Your task to perform on an android device: open app "Lyft - Rideshare, Bikes, Scooters & Transit" (install if not already installed) and enter user name: "deliberating@gmail.com" and password: "preyed" Image 0: 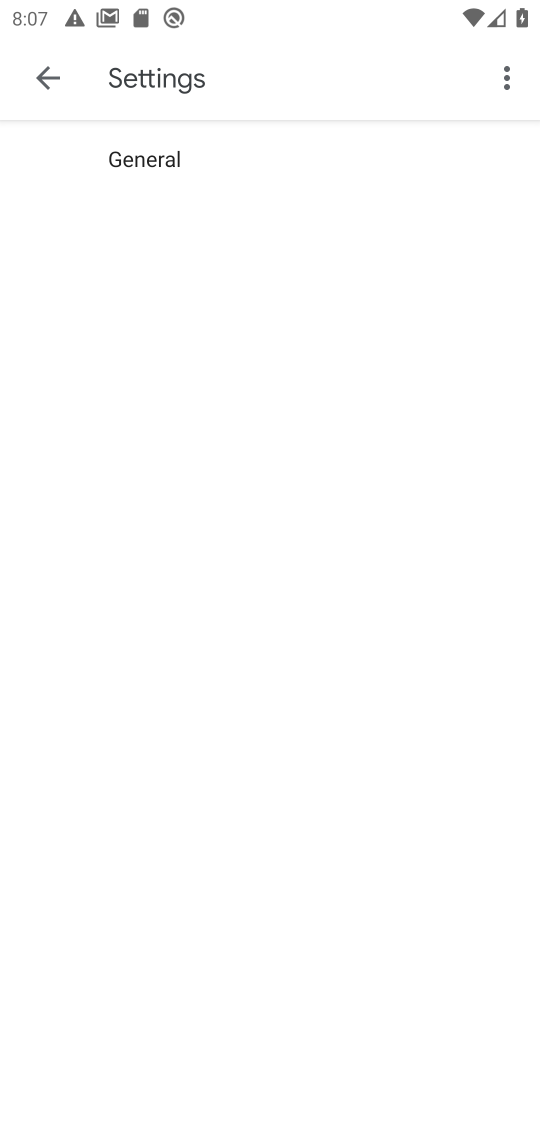
Step 0: press home button
Your task to perform on an android device: open app "Lyft - Rideshare, Bikes, Scooters & Transit" (install if not already installed) and enter user name: "deliberating@gmail.com" and password: "preyed" Image 1: 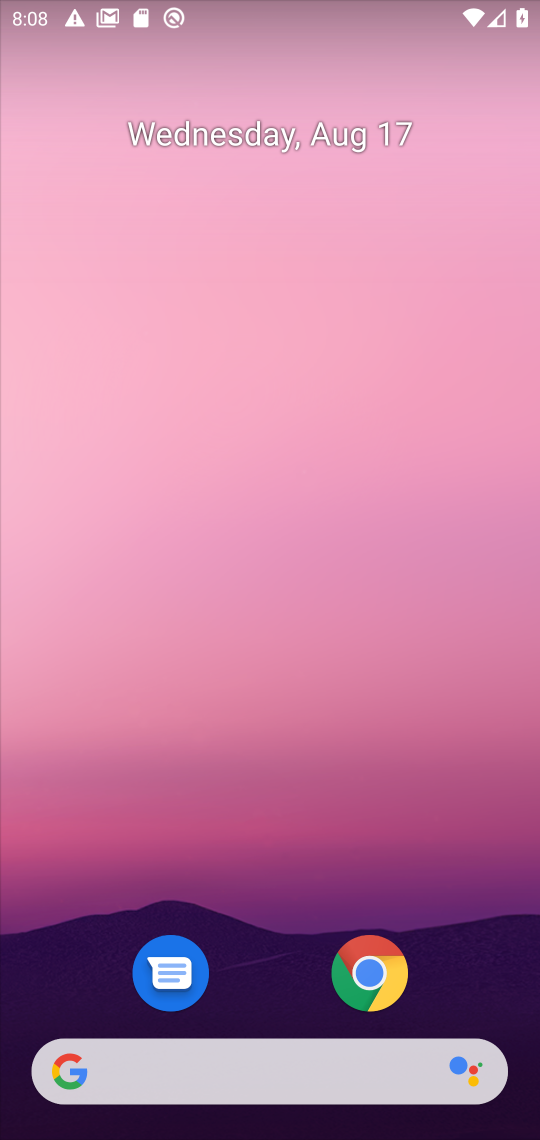
Step 1: drag from (275, 936) to (335, 96)
Your task to perform on an android device: open app "Lyft - Rideshare, Bikes, Scooters & Transit" (install if not already installed) and enter user name: "deliberating@gmail.com" and password: "preyed" Image 2: 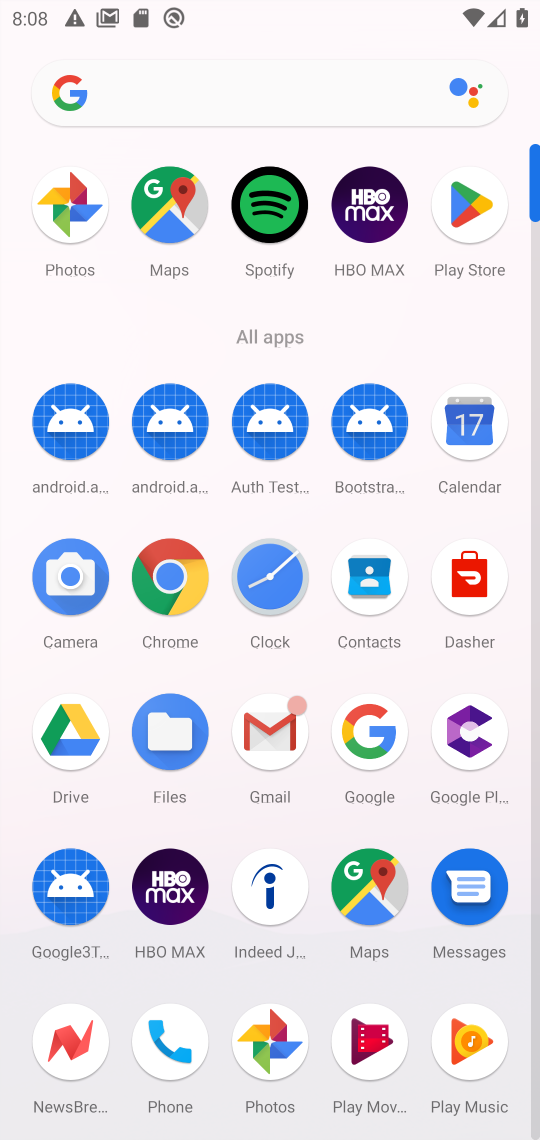
Step 2: click (446, 227)
Your task to perform on an android device: open app "Lyft - Rideshare, Bikes, Scooters & Transit" (install if not already installed) and enter user name: "deliberating@gmail.com" and password: "preyed" Image 3: 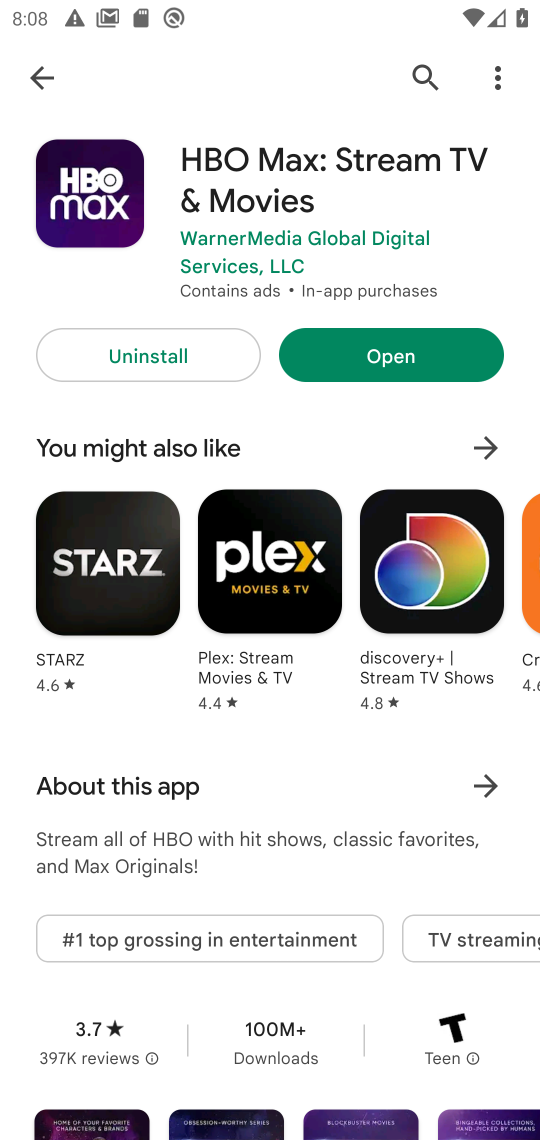
Step 3: click (33, 69)
Your task to perform on an android device: open app "Lyft - Rideshare, Bikes, Scooters & Transit" (install if not already installed) and enter user name: "deliberating@gmail.com" and password: "preyed" Image 4: 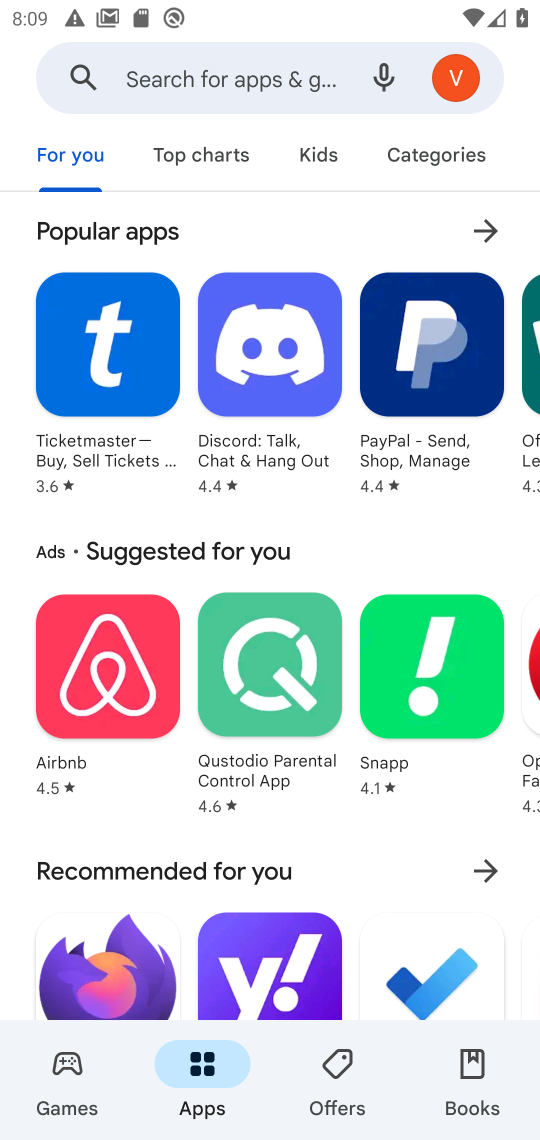
Step 4: click (173, 92)
Your task to perform on an android device: open app "Lyft - Rideshare, Bikes, Scooters & Transit" (install if not already installed) and enter user name: "deliberating@gmail.com" and password: "preyed" Image 5: 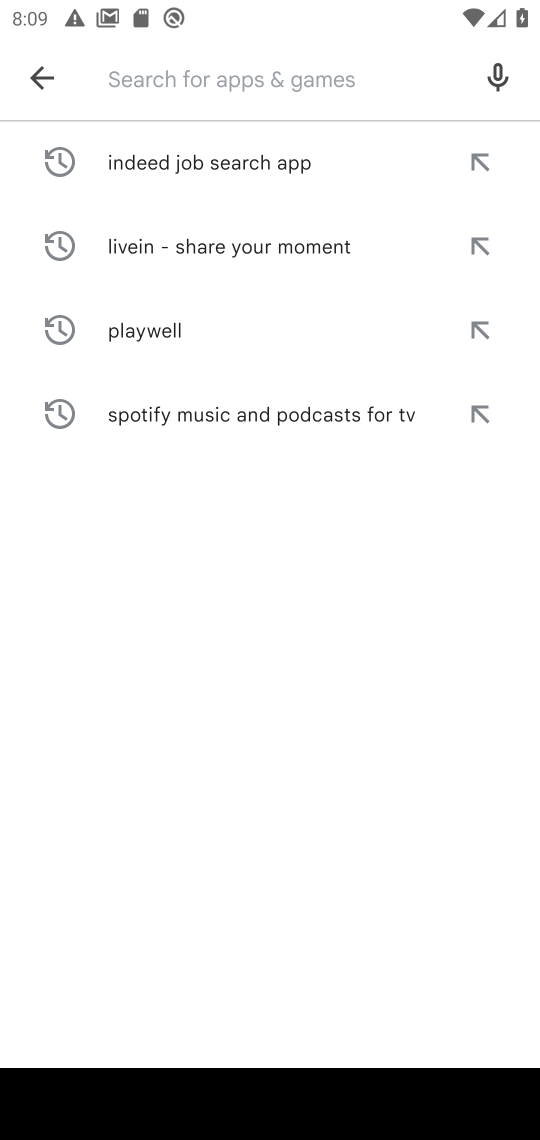
Step 5: type "Lyft - Rideshare, Bikes, Scooters & Transit"
Your task to perform on an android device: open app "Lyft - Rideshare, Bikes, Scooters & Transit" (install if not already installed) and enter user name: "deliberating@gmail.com" and password: "preyed" Image 6: 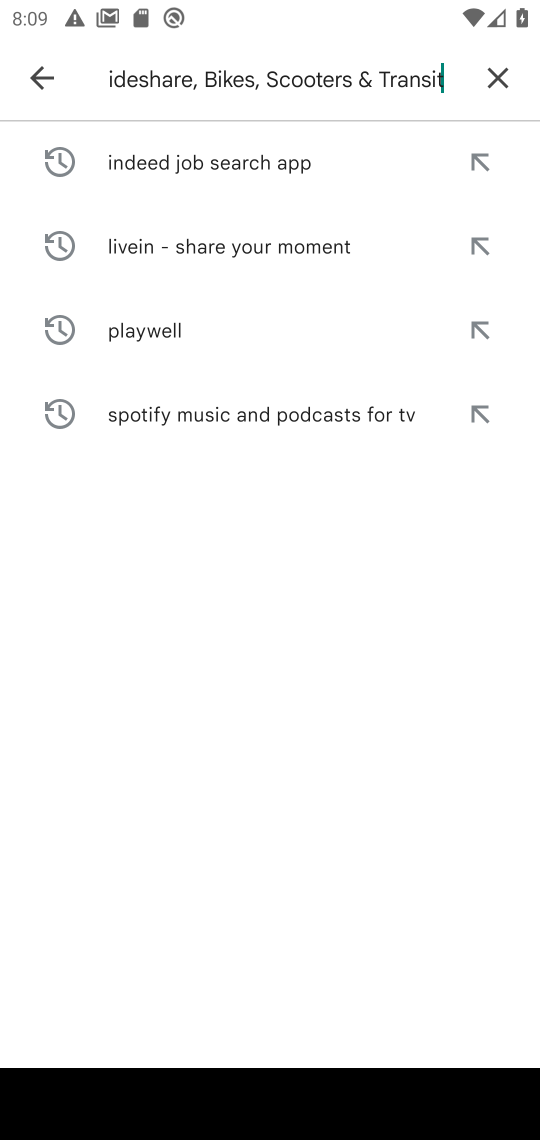
Step 6: type ""
Your task to perform on an android device: open app "Lyft - Rideshare, Bikes, Scooters & Transit" (install if not already installed) and enter user name: "deliberating@gmail.com" and password: "preyed" Image 7: 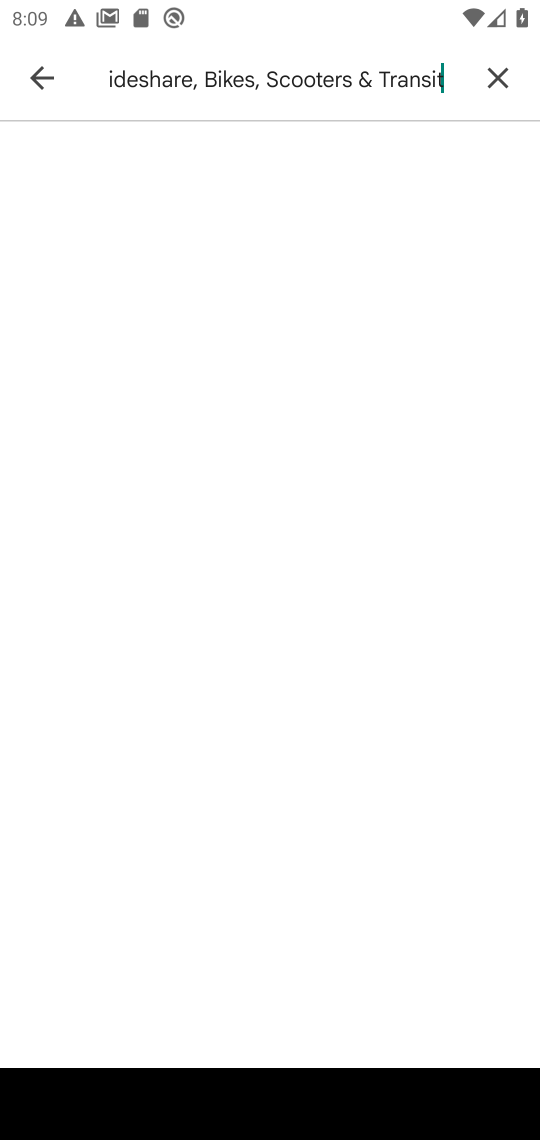
Step 7: task complete